Your task to perform on an android device: change the clock display to show seconds Image 0: 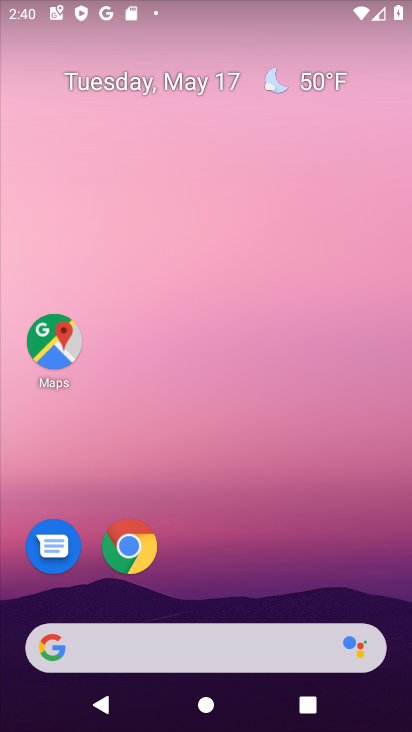
Step 0: drag from (228, 561) to (261, 9)
Your task to perform on an android device: change the clock display to show seconds Image 1: 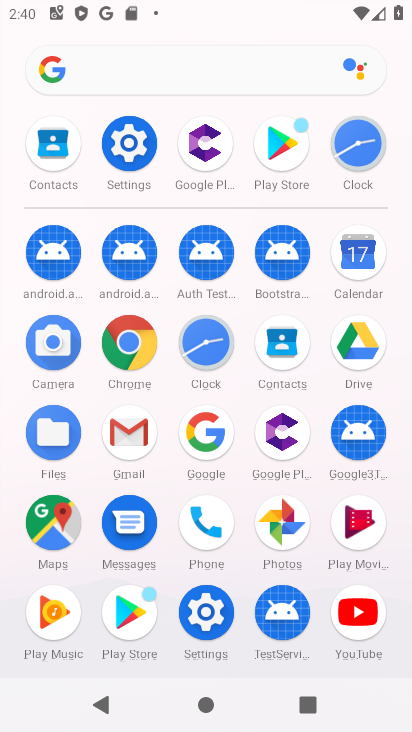
Step 1: click (205, 348)
Your task to perform on an android device: change the clock display to show seconds Image 2: 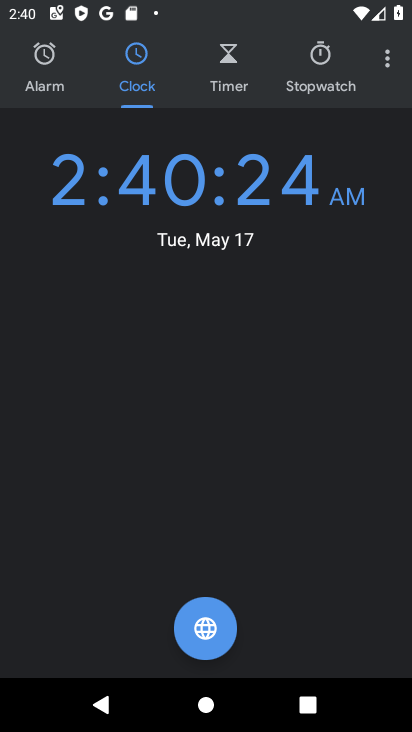
Step 2: click (384, 75)
Your task to perform on an android device: change the clock display to show seconds Image 3: 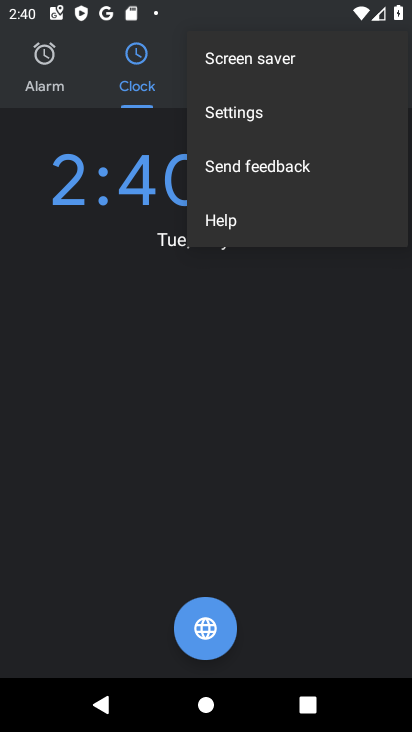
Step 3: click (267, 117)
Your task to perform on an android device: change the clock display to show seconds Image 4: 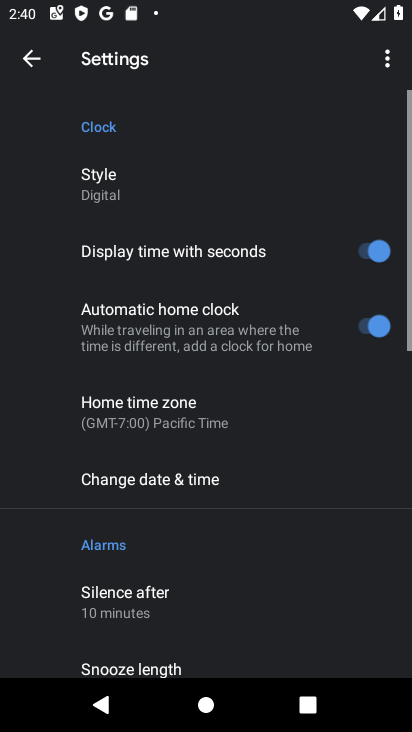
Step 4: click (110, 205)
Your task to perform on an android device: change the clock display to show seconds Image 5: 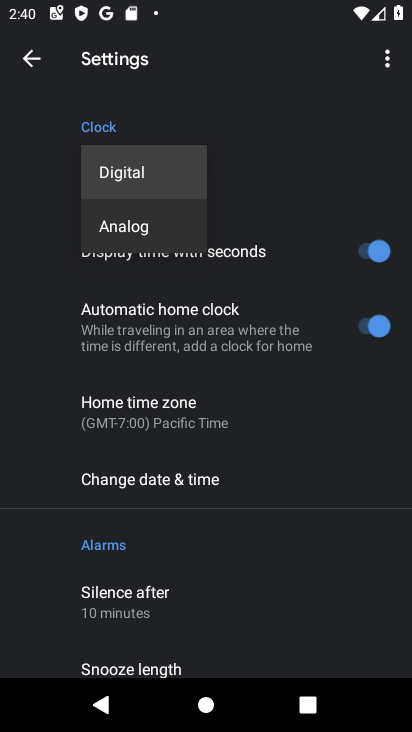
Step 5: click (125, 230)
Your task to perform on an android device: change the clock display to show seconds Image 6: 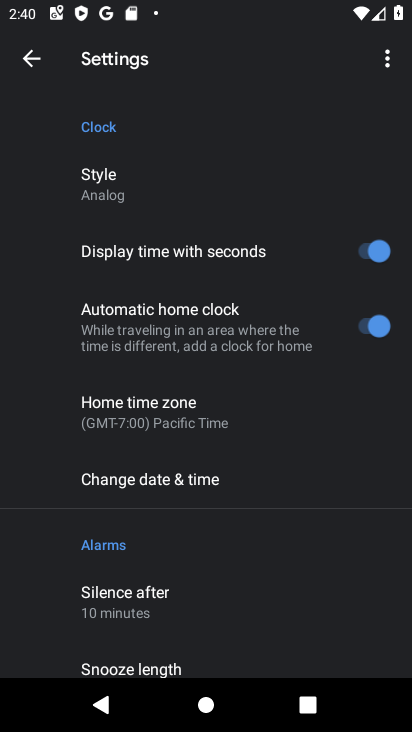
Step 6: click (348, 262)
Your task to perform on an android device: change the clock display to show seconds Image 7: 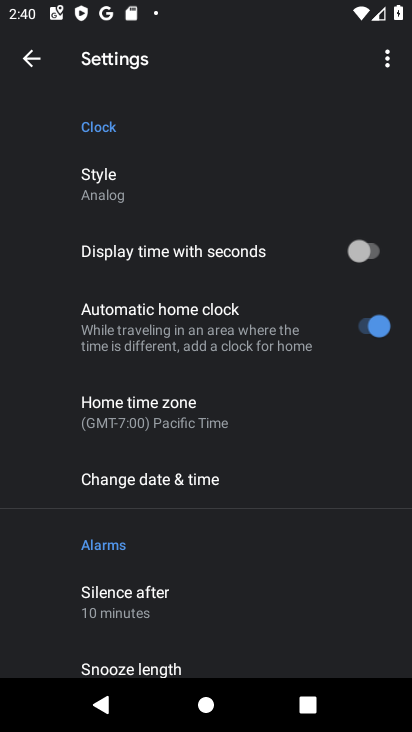
Step 7: click (370, 244)
Your task to perform on an android device: change the clock display to show seconds Image 8: 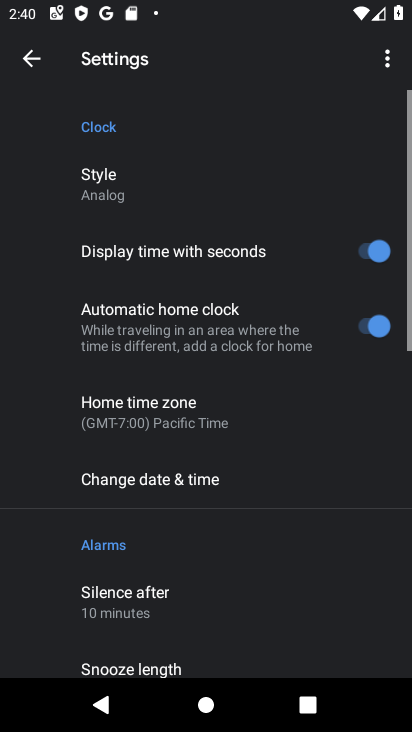
Step 8: task complete